Your task to perform on an android device: turn off airplane mode Image 0: 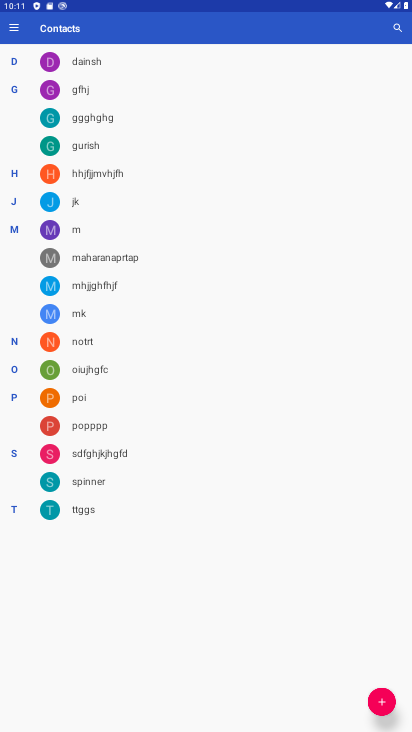
Step 0: press home button
Your task to perform on an android device: turn off airplane mode Image 1: 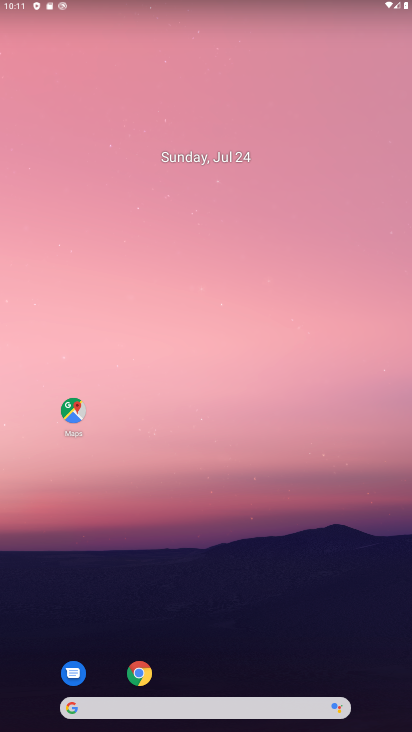
Step 1: task complete